Your task to perform on an android device: Check the news Image 0: 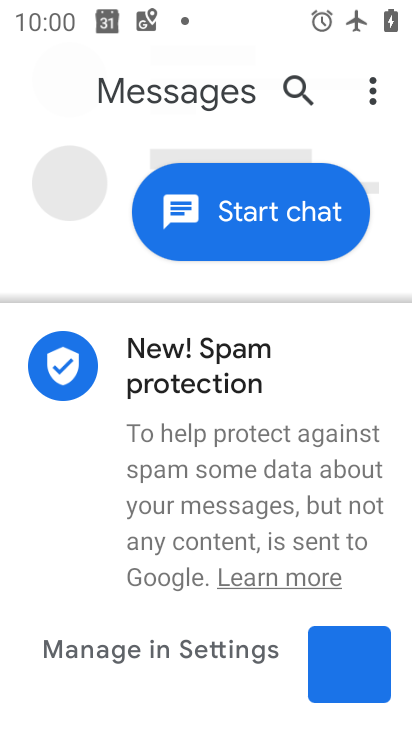
Step 0: press home button
Your task to perform on an android device: Check the news Image 1: 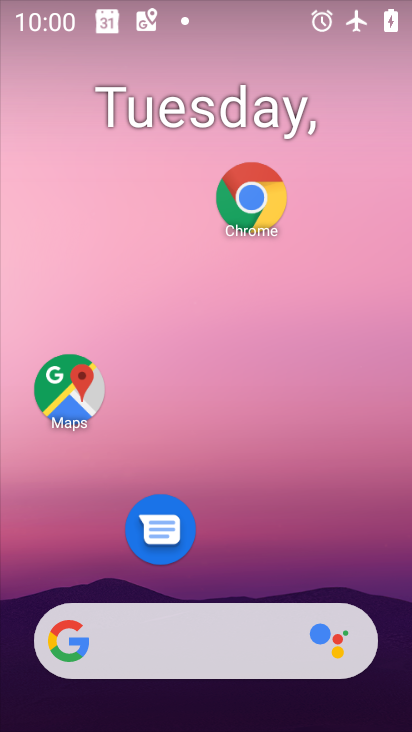
Step 1: drag from (319, 478) to (308, 40)
Your task to perform on an android device: Check the news Image 2: 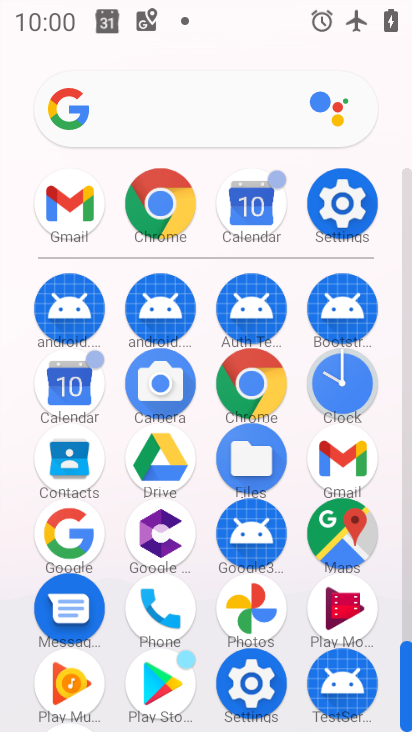
Step 2: click (249, 675)
Your task to perform on an android device: Check the news Image 3: 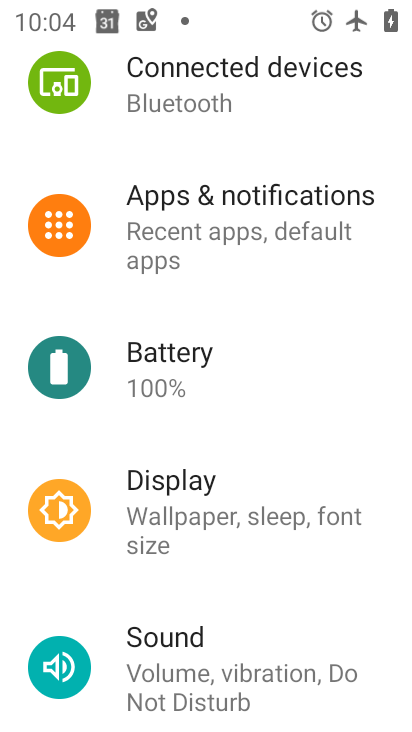
Step 3: press home button
Your task to perform on an android device: Check the news Image 4: 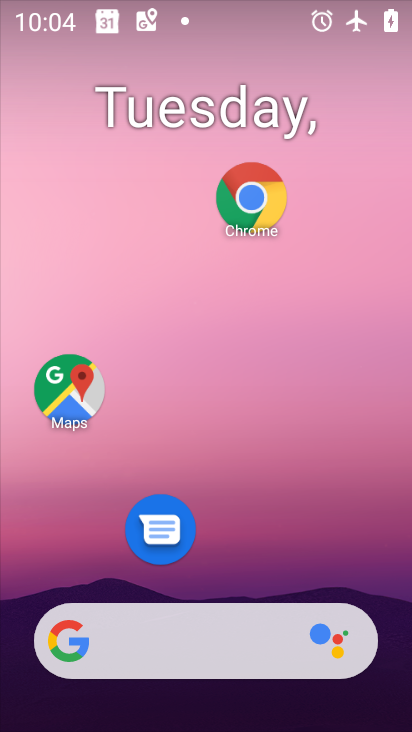
Step 4: drag from (315, 513) to (337, 61)
Your task to perform on an android device: Check the news Image 5: 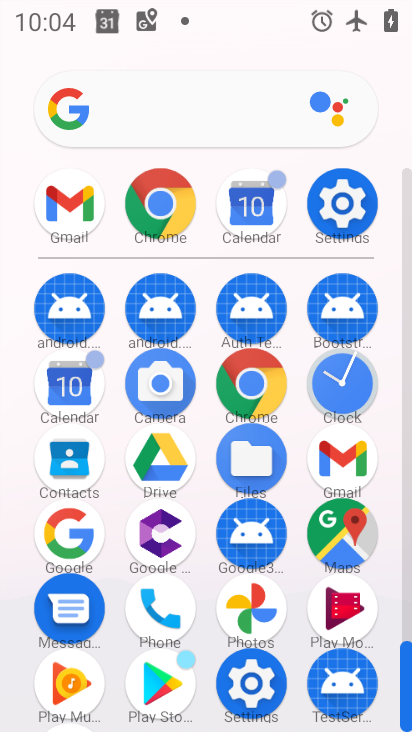
Step 5: click (154, 215)
Your task to perform on an android device: Check the news Image 6: 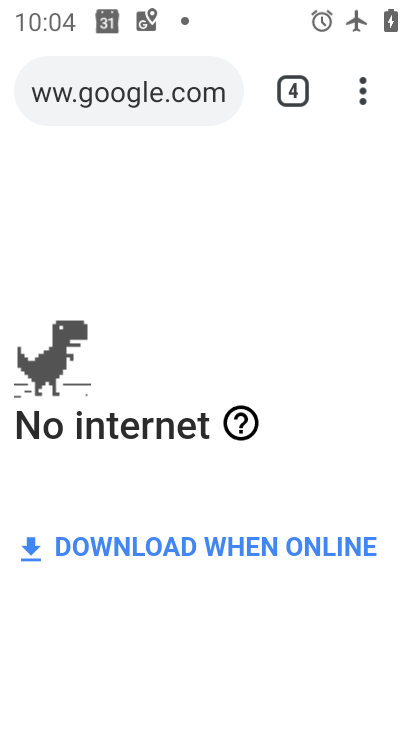
Step 6: click (164, 116)
Your task to perform on an android device: Check the news Image 7: 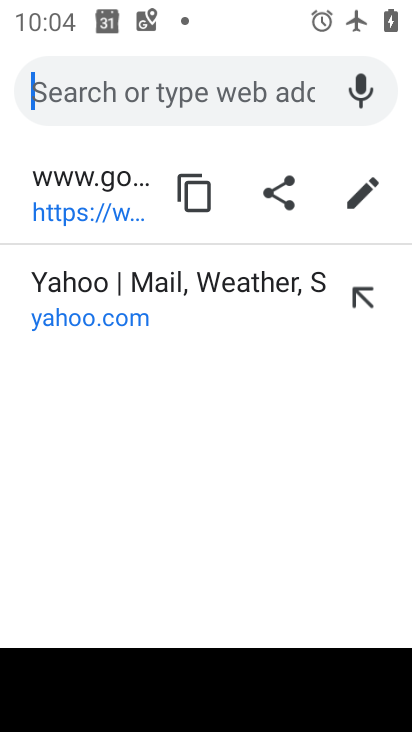
Step 7: task complete